Your task to perform on an android device: What's on my calendar tomorrow? Image 0: 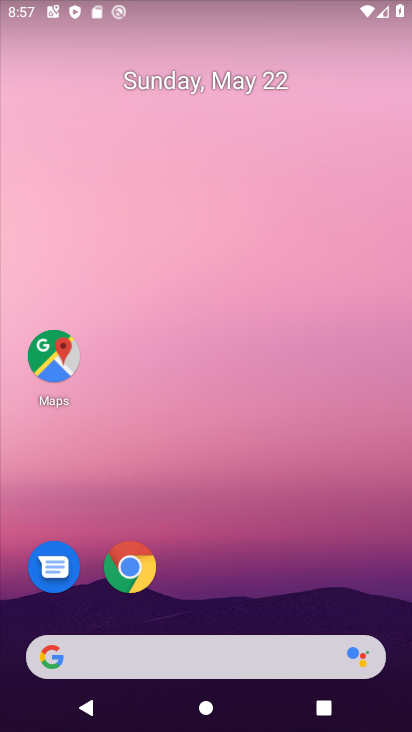
Step 0: drag from (206, 612) to (187, 102)
Your task to perform on an android device: What's on my calendar tomorrow? Image 1: 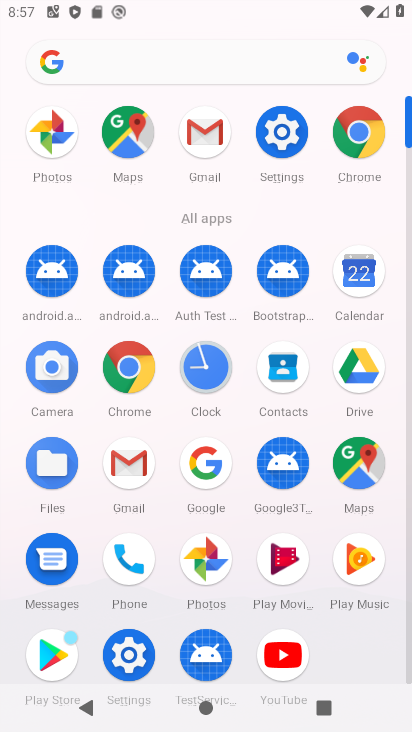
Step 1: click (357, 268)
Your task to perform on an android device: What's on my calendar tomorrow? Image 2: 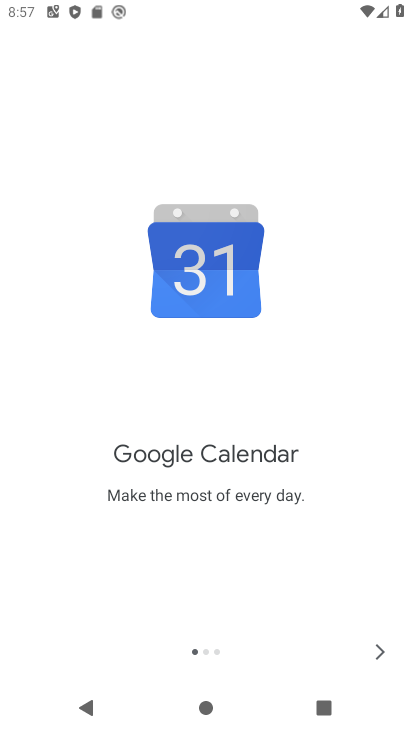
Step 2: click (380, 647)
Your task to perform on an android device: What's on my calendar tomorrow? Image 3: 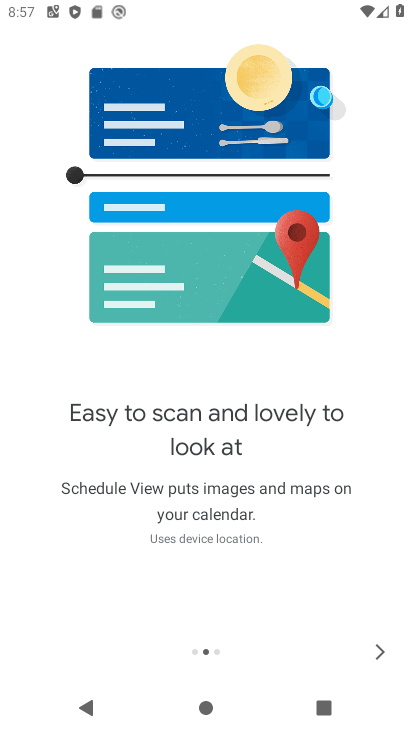
Step 3: click (380, 647)
Your task to perform on an android device: What's on my calendar tomorrow? Image 4: 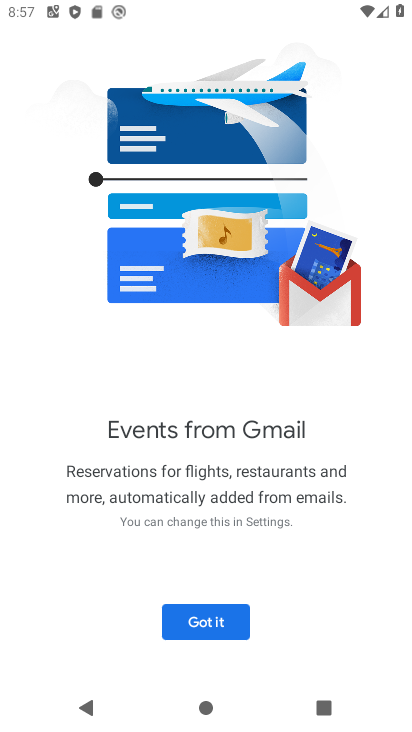
Step 4: click (219, 618)
Your task to perform on an android device: What's on my calendar tomorrow? Image 5: 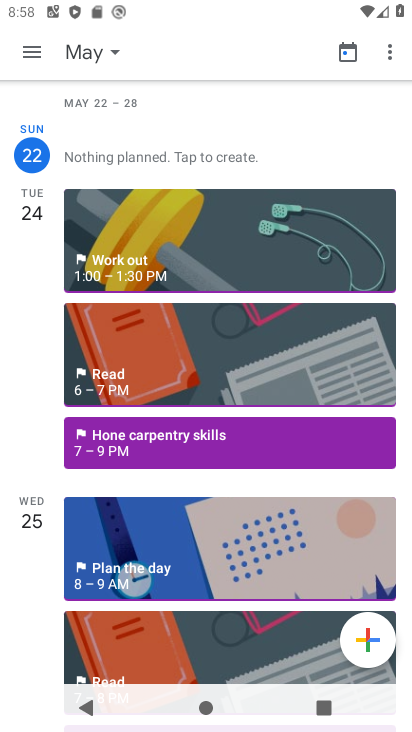
Step 5: click (31, 48)
Your task to perform on an android device: What's on my calendar tomorrow? Image 6: 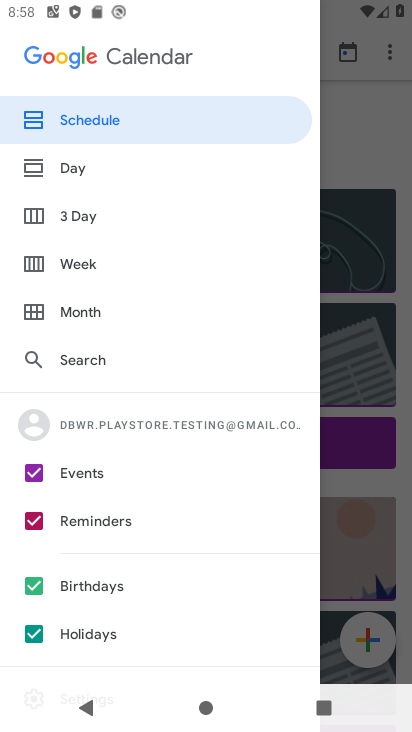
Step 6: click (65, 164)
Your task to perform on an android device: What's on my calendar tomorrow? Image 7: 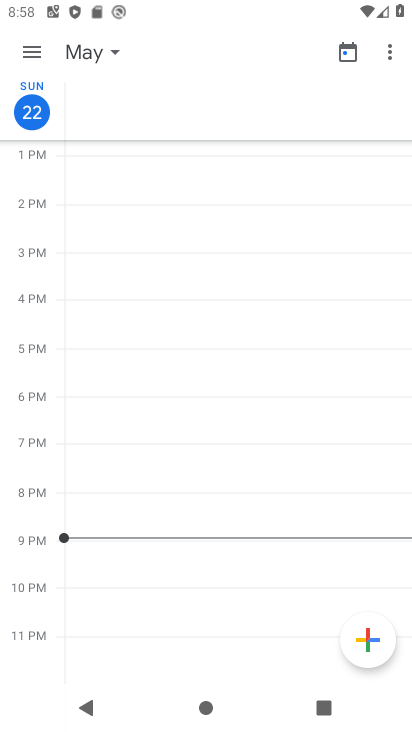
Step 7: click (119, 51)
Your task to perform on an android device: What's on my calendar tomorrow? Image 8: 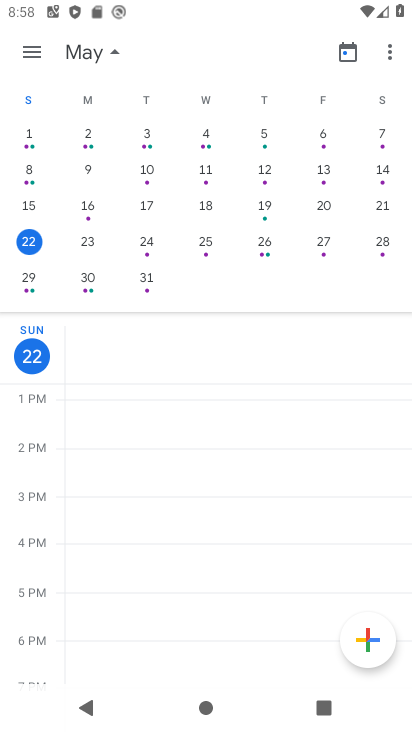
Step 8: click (84, 243)
Your task to perform on an android device: What's on my calendar tomorrow? Image 9: 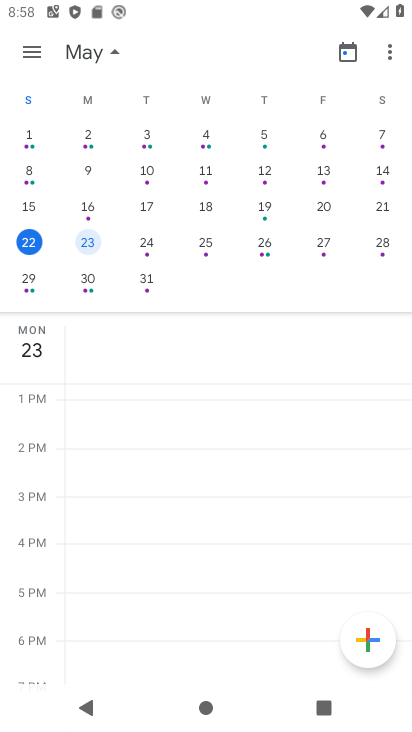
Step 9: click (118, 47)
Your task to perform on an android device: What's on my calendar tomorrow? Image 10: 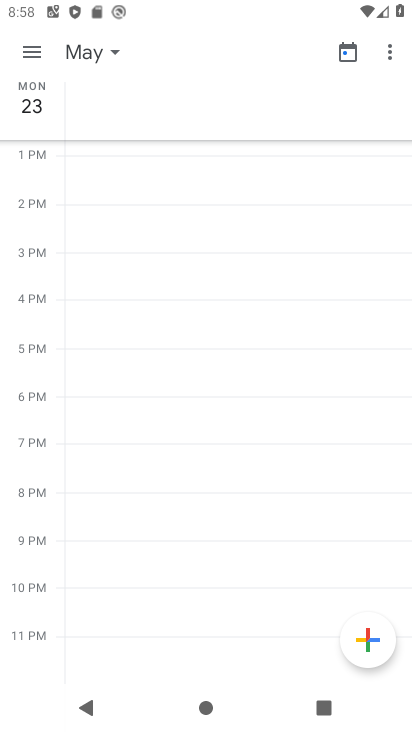
Step 10: task complete